Your task to perform on an android device: turn off javascript in the chrome app Image 0: 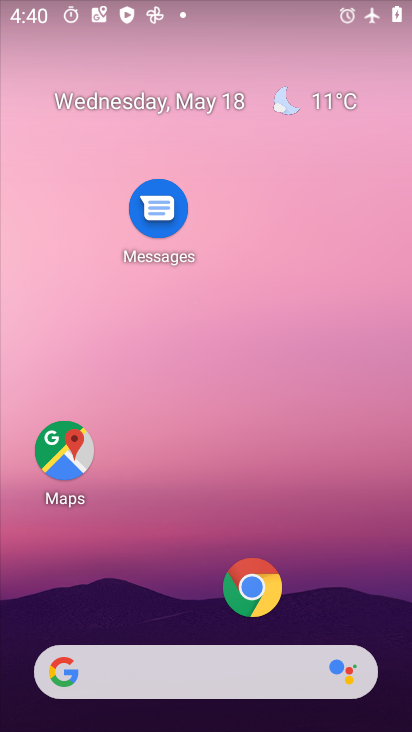
Step 0: drag from (295, 533) to (290, 136)
Your task to perform on an android device: turn off javascript in the chrome app Image 1: 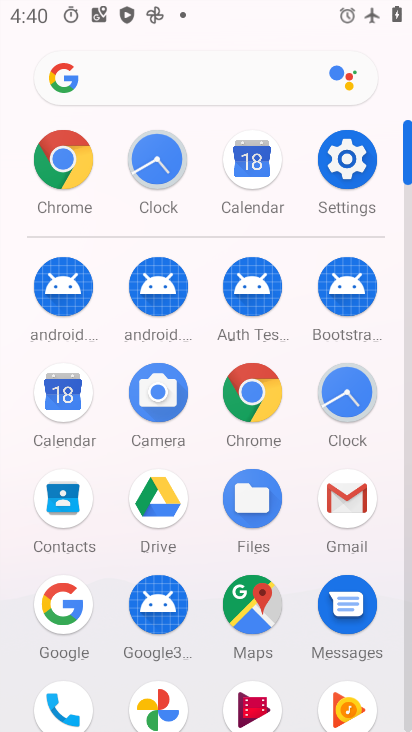
Step 1: click (245, 409)
Your task to perform on an android device: turn off javascript in the chrome app Image 2: 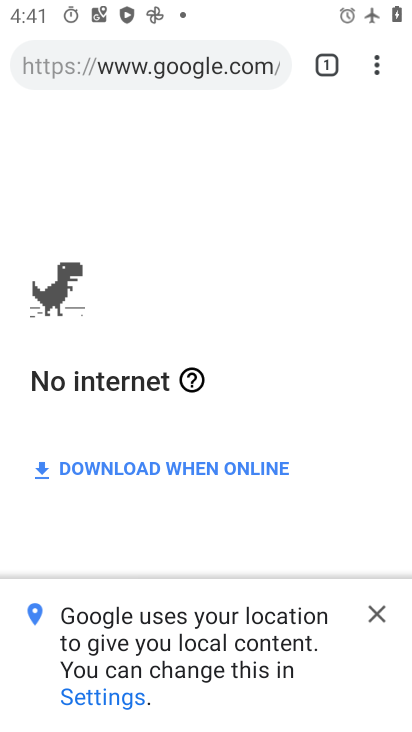
Step 2: click (373, 76)
Your task to perform on an android device: turn off javascript in the chrome app Image 3: 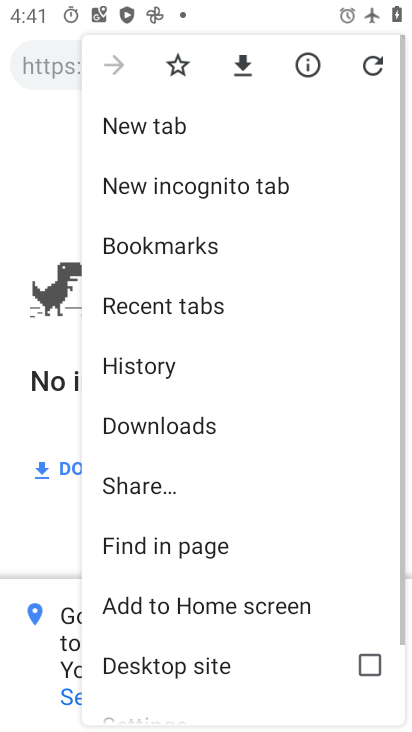
Step 3: drag from (190, 584) to (243, 174)
Your task to perform on an android device: turn off javascript in the chrome app Image 4: 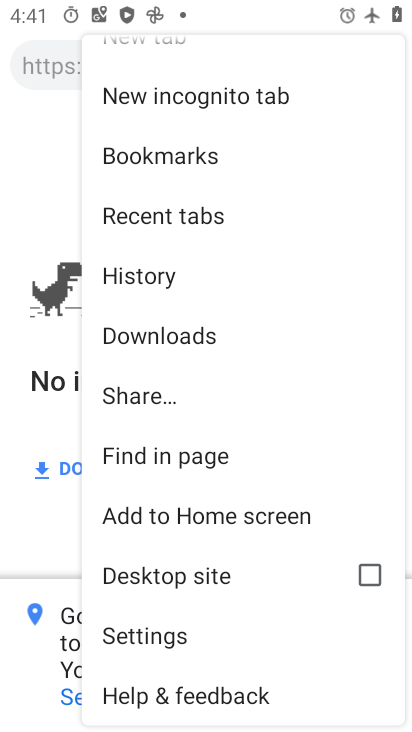
Step 4: click (165, 628)
Your task to perform on an android device: turn off javascript in the chrome app Image 5: 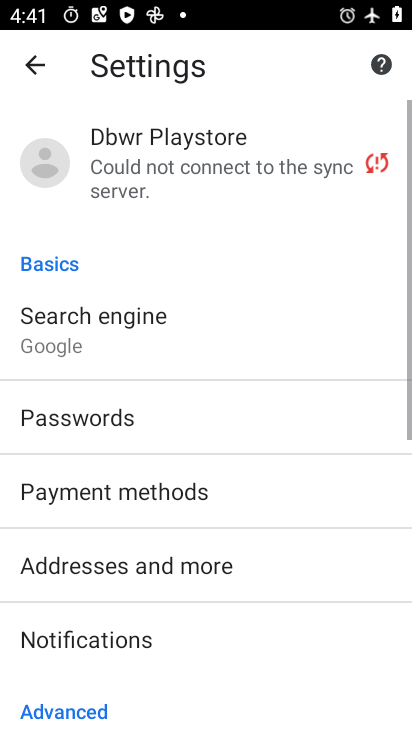
Step 5: drag from (165, 628) to (190, 358)
Your task to perform on an android device: turn off javascript in the chrome app Image 6: 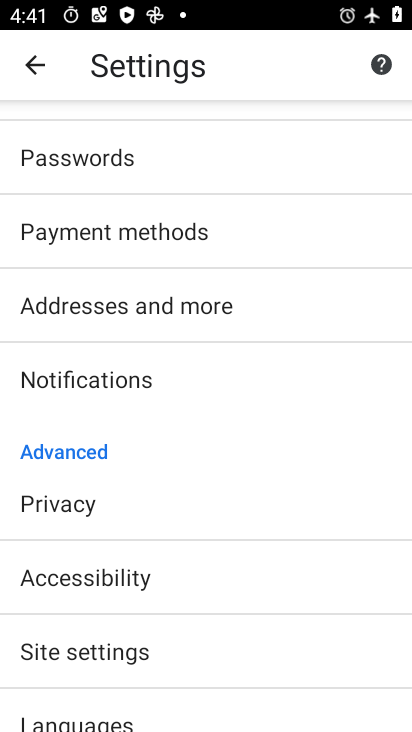
Step 6: drag from (102, 659) to (128, 350)
Your task to perform on an android device: turn off javascript in the chrome app Image 7: 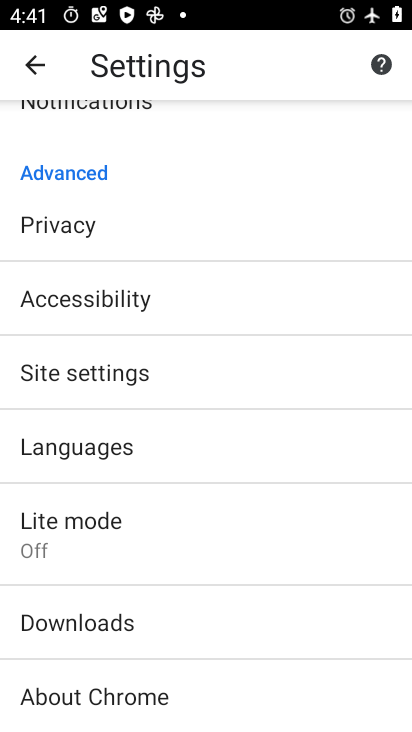
Step 7: drag from (101, 624) to (147, 256)
Your task to perform on an android device: turn off javascript in the chrome app Image 8: 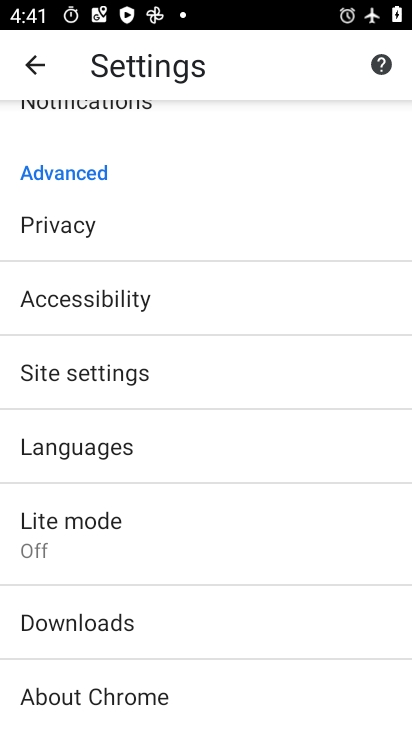
Step 8: click (137, 379)
Your task to perform on an android device: turn off javascript in the chrome app Image 9: 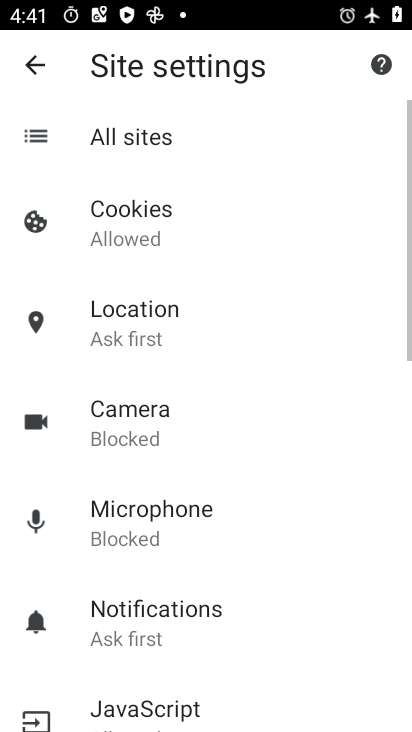
Step 9: drag from (133, 540) to (151, 274)
Your task to perform on an android device: turn off javascript in the chrome app Image 10: 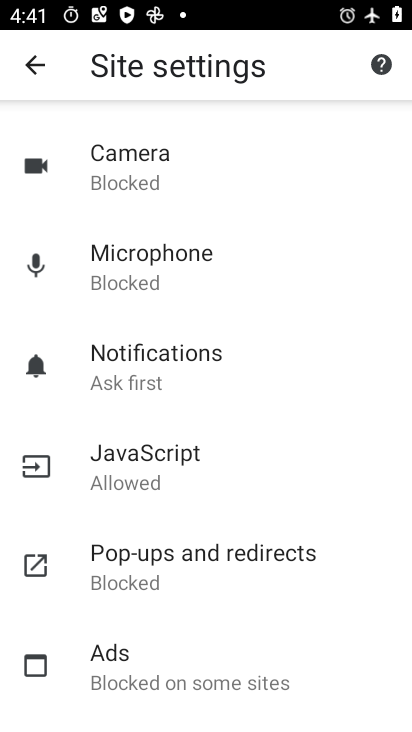
Step 10: click (166, 481)
Your task to perform on an android device: turn off javascript in the chrome app Image 11: 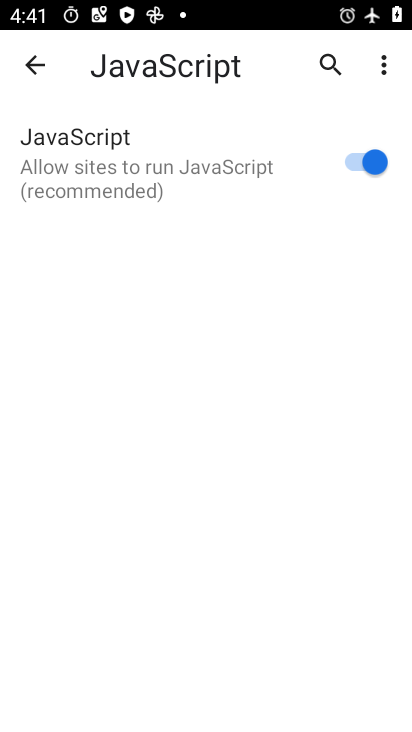
Step 11: click (358, 168)
Your task to perform on an android device: turn off javascript in the chrome app Image 12: 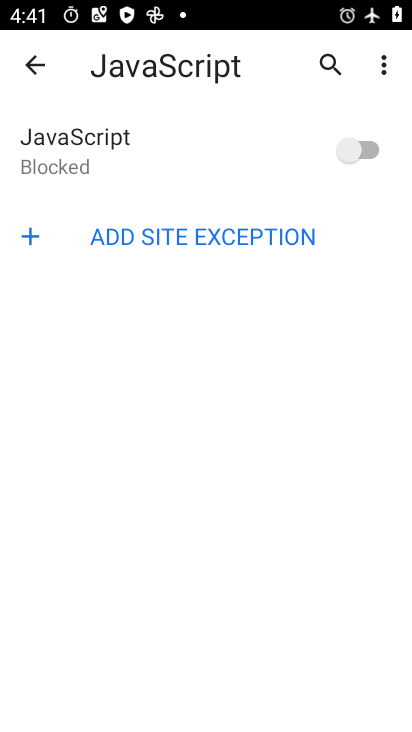
Step 12: task complete